Your task to perform on an android device: turn off notifications settings in the gmail app Image 0: 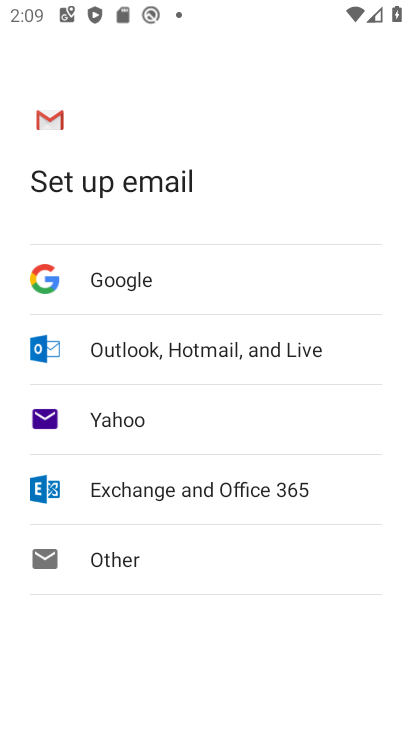
Step 0: press back button
Your task to perform on an android device: turn off notifications settings in the gmail app Image 1: 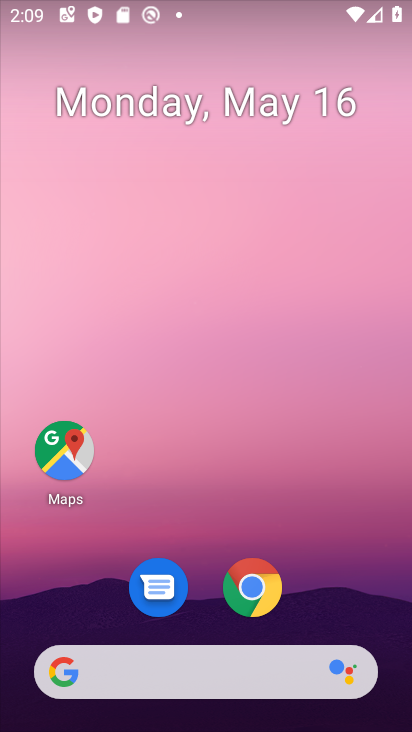
Step 1: drag from (375, 625) to (170, 95)
Your task to perform on an android device: turn off notifications settings in the gmail app Image 2: 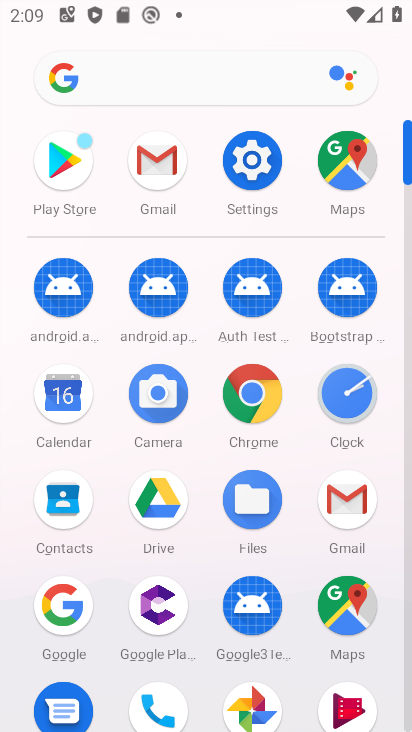
Step 2: click (348, 489)
Your task to perform on an android device: turn off notifications settings in the gmail app Image 3: 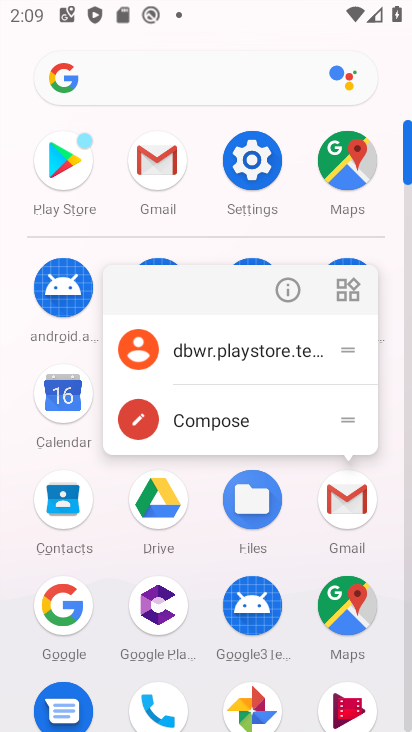
Step 3: click (341, 507)
Your task to perform on an android device: turn off notifications settings in the gmail app Image 4: 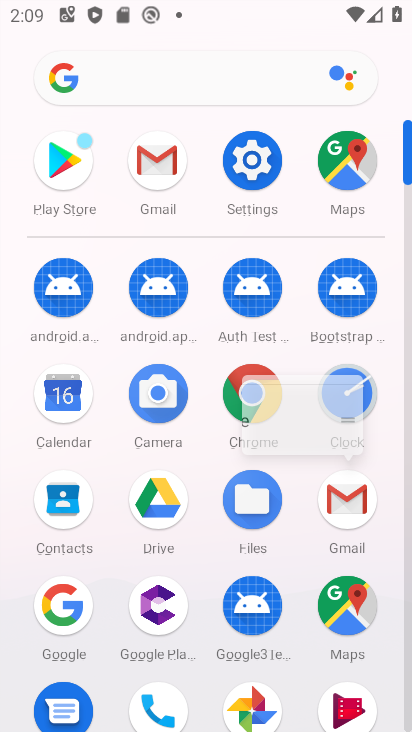
Step 4: click (341, 507)
Your task to perform on an android device: turn off notifications settings in the gmail app Image 5: 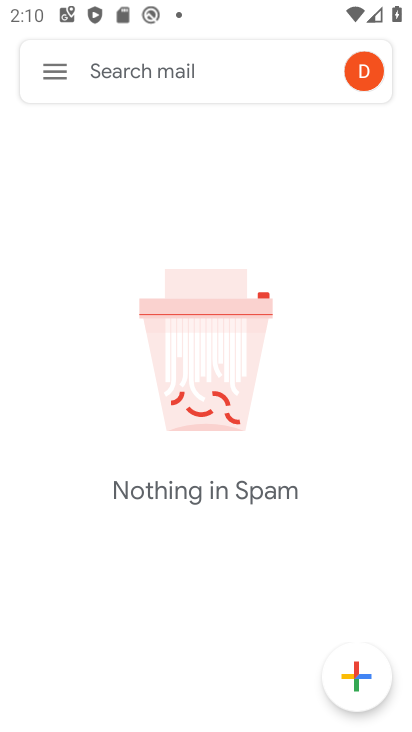
Step 5: click (59, 70)
Your task to perform on an android device: turn off notifications settings in the gmail app Image 6: 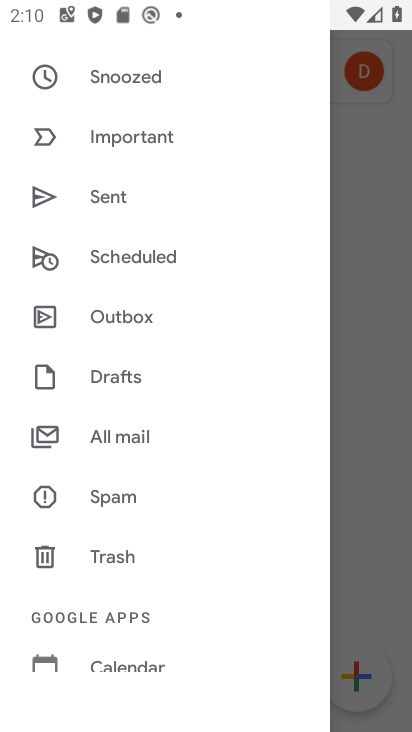
Step 6: drag from (132, 544) to (41, 226)
Your task to perform on an android device: turn off notifications settings in the gmail app Image 7: 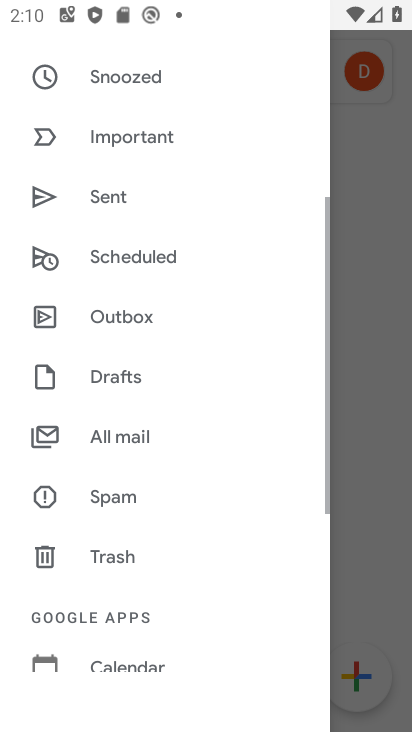
Step 7: drag from (67, 208) to (50, 41)
Your task to perform on an android device: turn off notifications settings in the gmail app Image 8: 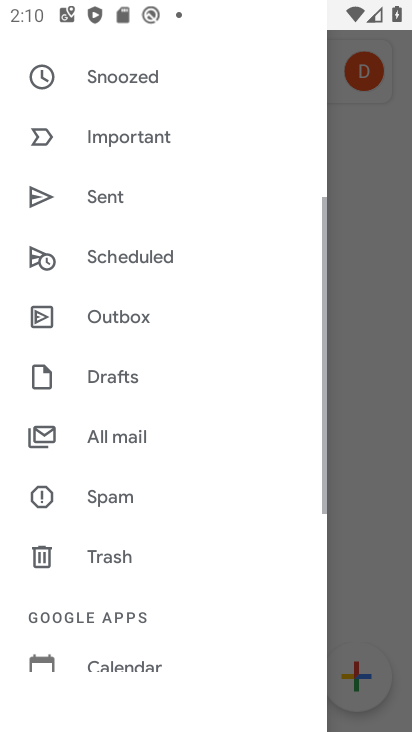
Step 8: drag from (141, 368) to (133, 0)
Your task to perform on an android device: turn off notifications settings in the gmail app Image 9: 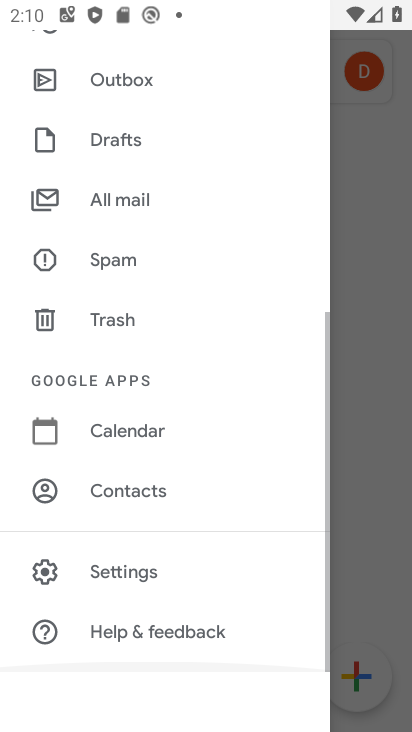
Step 9: drag from (141, 624) to (98, 125)
Your task to perform on an android device: turn off notifications settings in the gmail app Image 10: 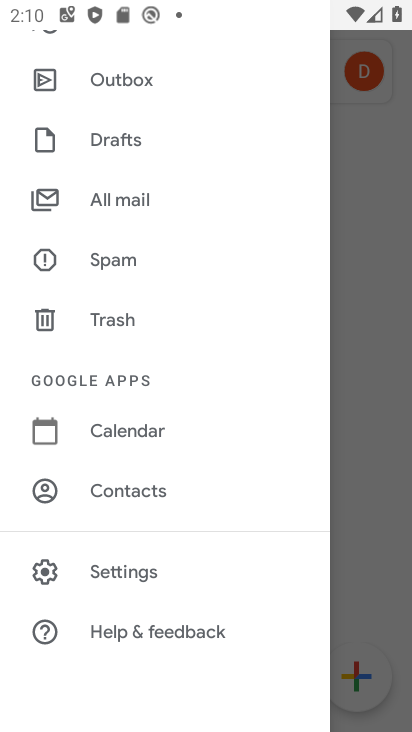
Step 10: click (116, 552)
Your task to perform on an android device: turn off notifications settings in the gmail app Image 11: 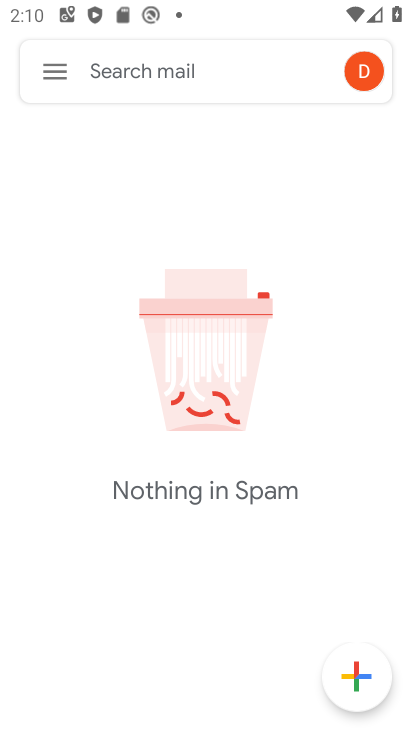
Step 11: click (116, 583)
Your task to perform on an android device: turn off notifications settings in the gmail app Image 12: 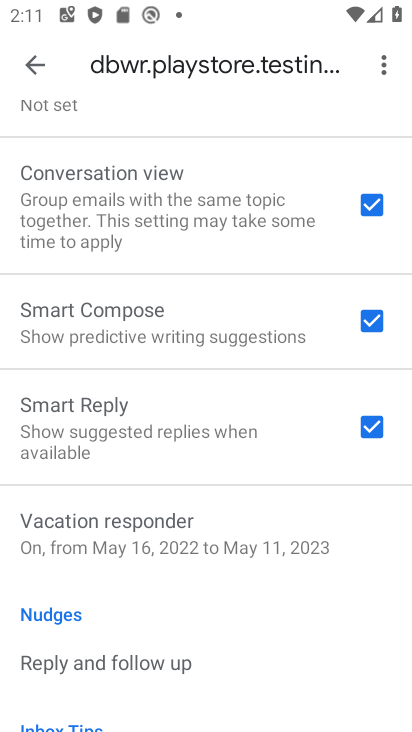
Step 12: drag from (119, 279) to (183, 663)
Your task to perform on an android device: turn off notifications settings in the gmail app Image 13: 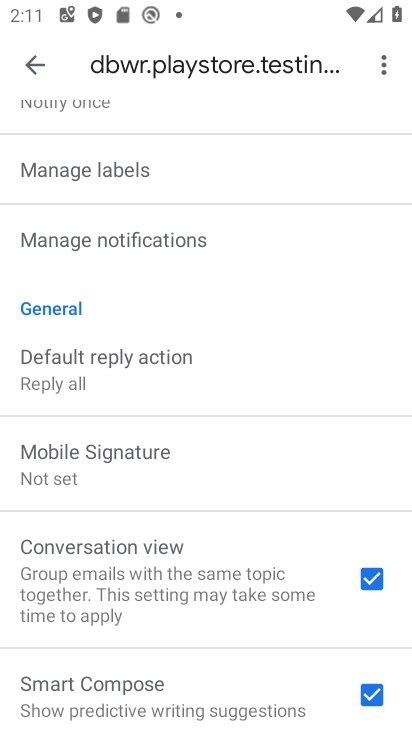
Step 13: drag from (77, 165) to (111, 546)
Your task to perform on an android device: turn off notifications settings in the gmail app Image 14: 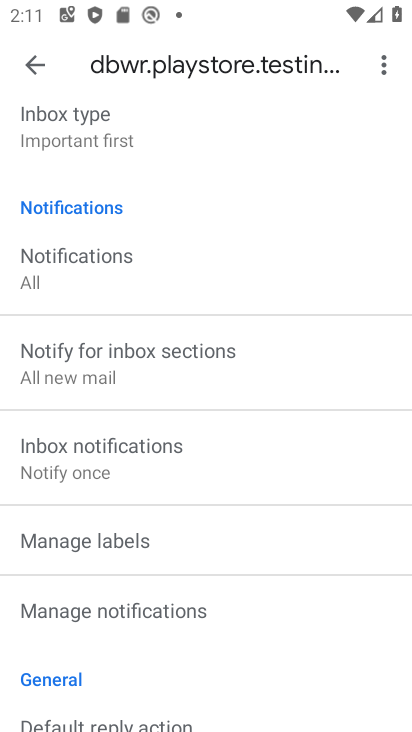
Step 14: click (53, 262)
Your task to perform on an android device: turn off notifications settings in the gmail app Image 15: 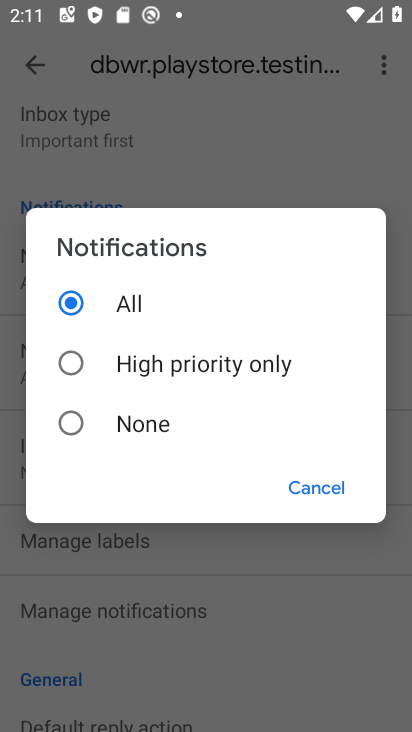
Step 15: click (64, 418)
Your task to perform on an android device: turn off notifications settings in the gmail app Image 16: 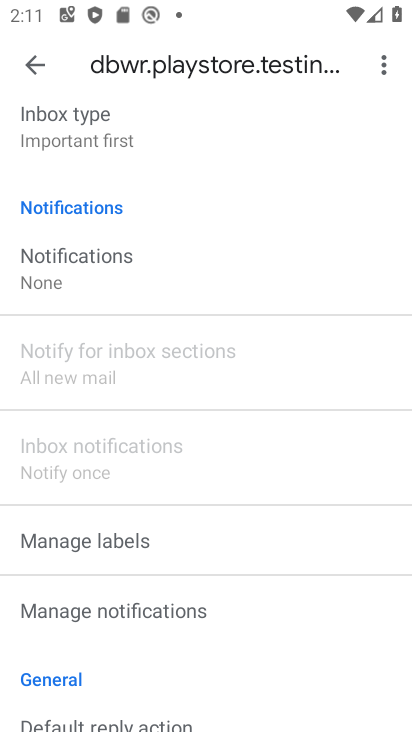
Step 16: task complete